Your task to perform on an android device: What's on my calendar today? Image 0: 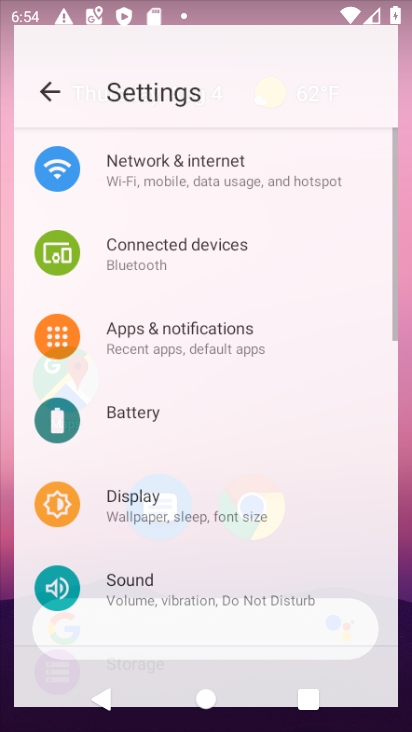
Step 0: drag from (380, 615) to (249, 37)
Your task to perform on an android device: What's on my calendar today? Image 1: 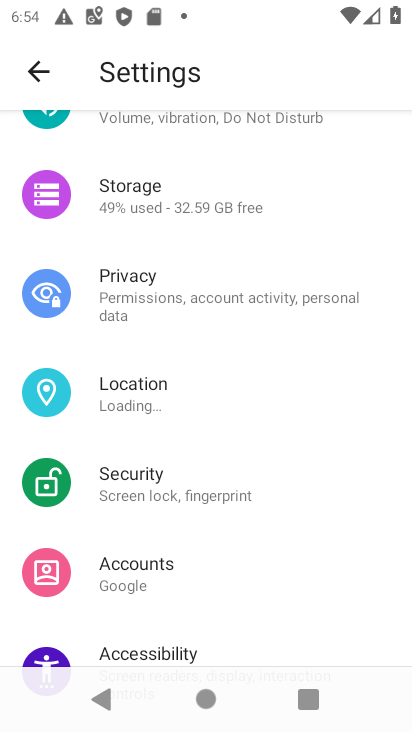
Step 1: press home button
Your task to perform on an android device: What's on my calendar today? Image 2: 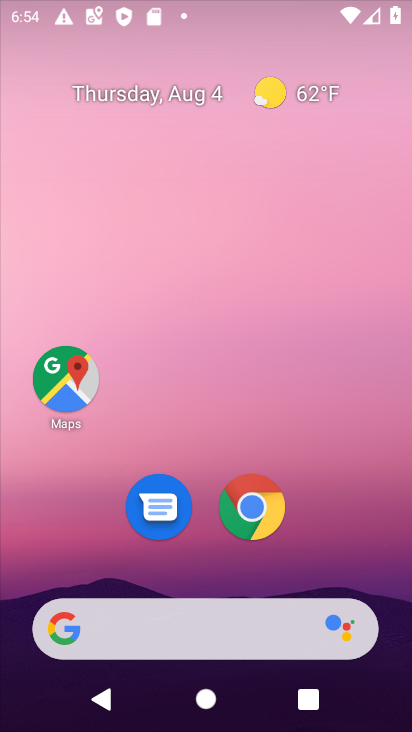
Step 2: drag from (400, 637) to (254, 26)
Your task to perform on an android device: What's on my calendar today? Image 3: 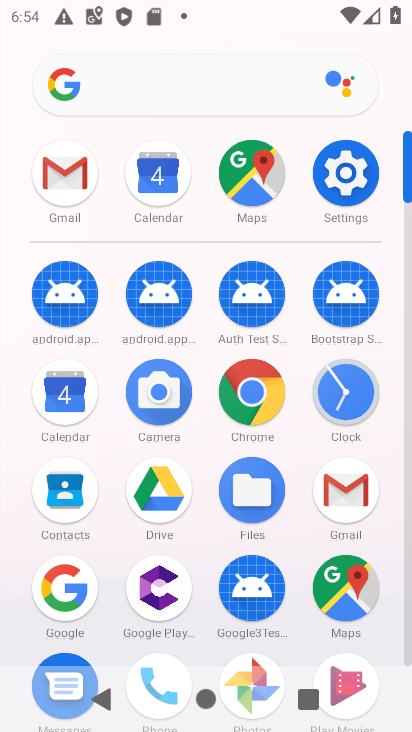
Step 3: click (67, 406)
Your task to perform on an android device: What's on my calendar today? Image 4: 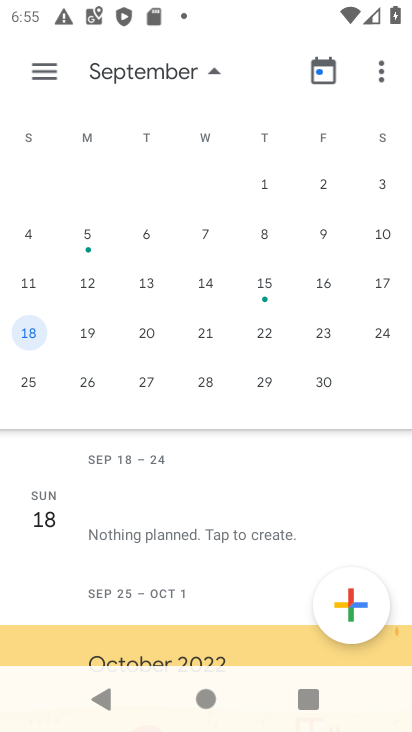
Step 4: task complete